Your task to perform on an android device: Show me the alarms in the clock app Image 0: 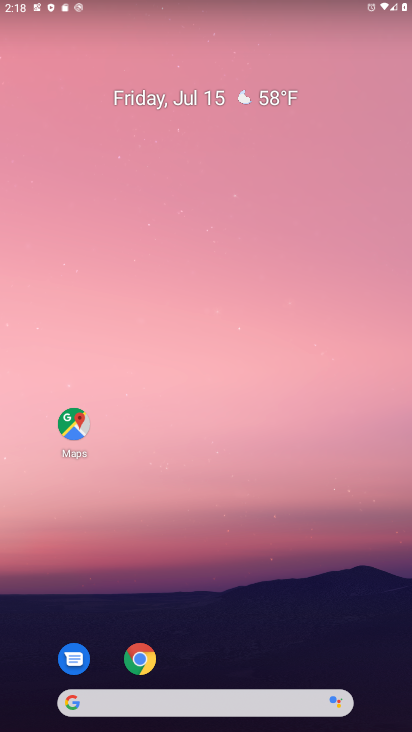
Step 0: drag from (222, 725) to (225, 120)
Your task to perform on an android device: Show me the alarms in the clock app Image 1: 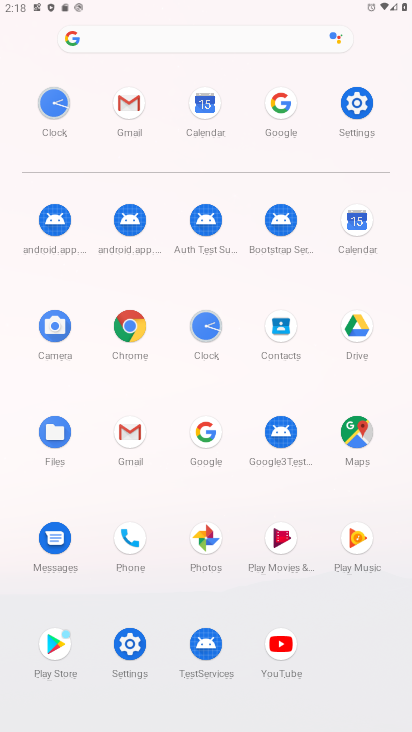
Step 1: click (204, 325)
Your task to perform on an android device: Show me the alarms in the clock app Image 2: 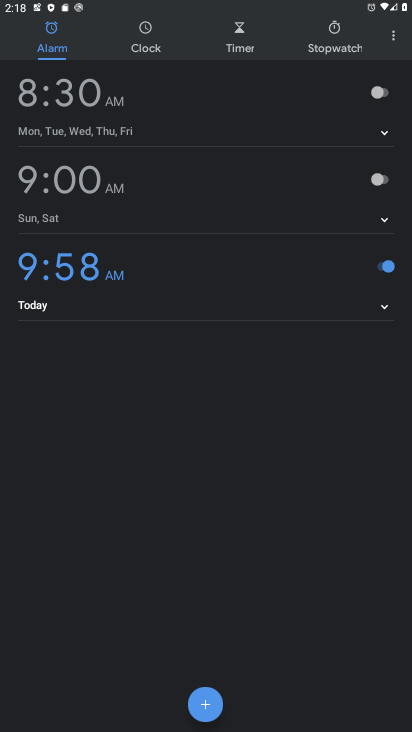
Step 2: task complete